Your task to perform on an android device: Show me popular videos on Youtube Image 0: 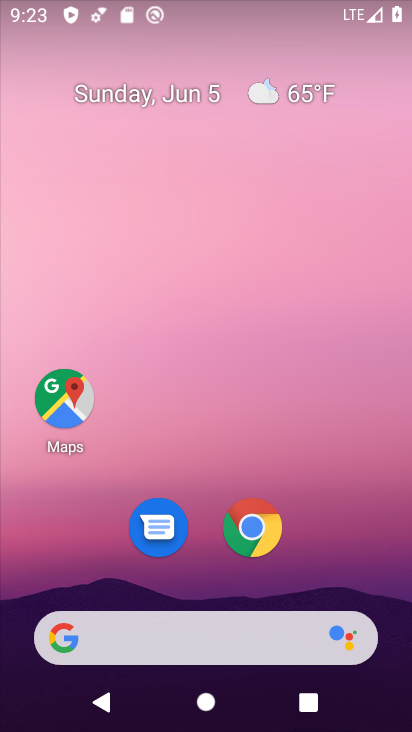
Step 0: drag from (175, 587) to (276, 83)
Your task to perform on an android device: Show me popular videos on Youtube Image 1: 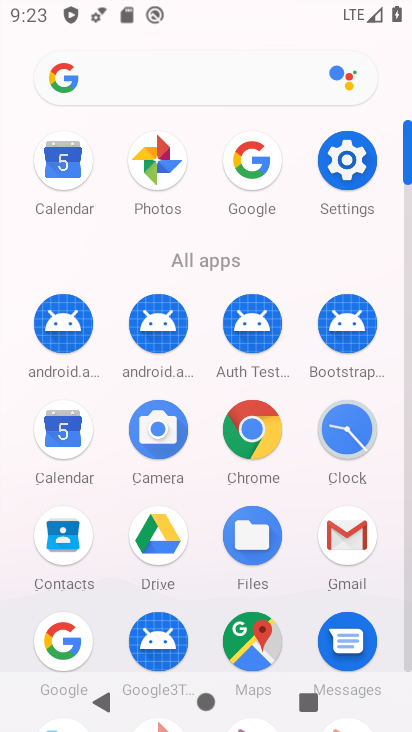
Step 1: drag from (185, 670) to (254, 59)
Your task to perform on an android device: Show me popular videos on Youtube Image 2: 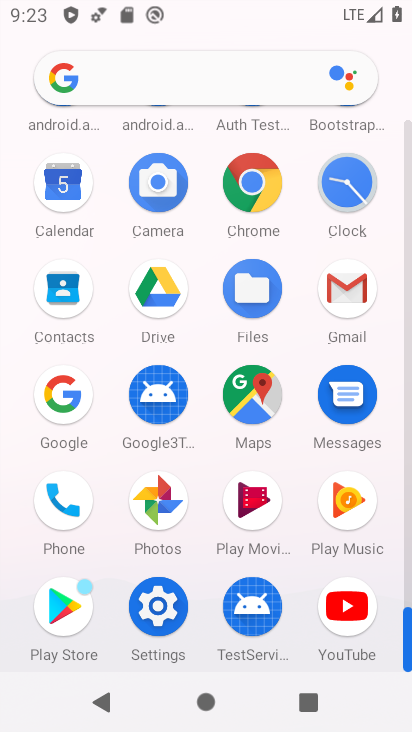
Step 2: click (337, 611)
Your task to perform on an android device: Show me popular videos on Youtube Image 3: 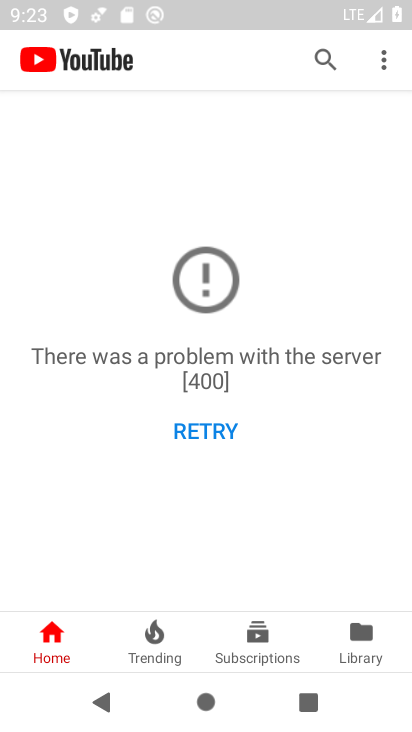
Step 3: task complete